Your task to perform on an android device: What's the weather? Image 0: 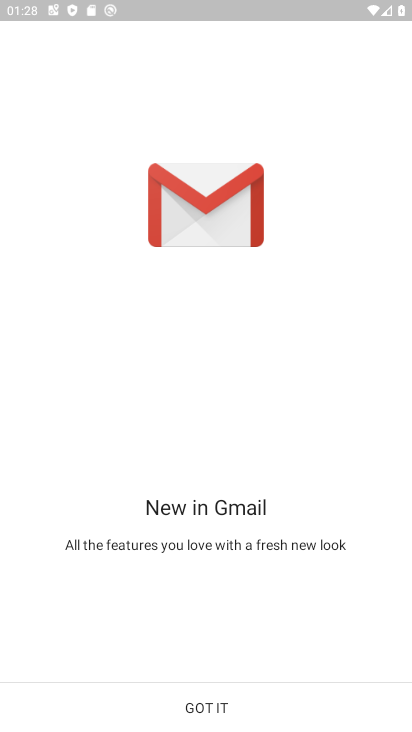
Step 0: press home button
Your task to perform on an android device: What's the weather? Image 1: 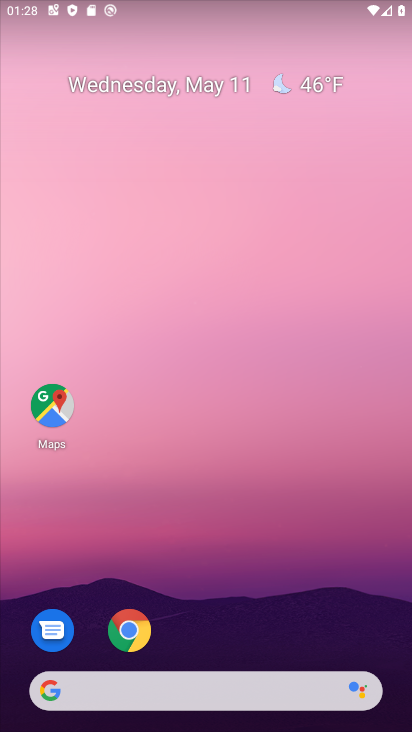
Step 1: drag from (284, 512) to (263, 105)
Your task to perform on an android device: What's the weather? Image 2: 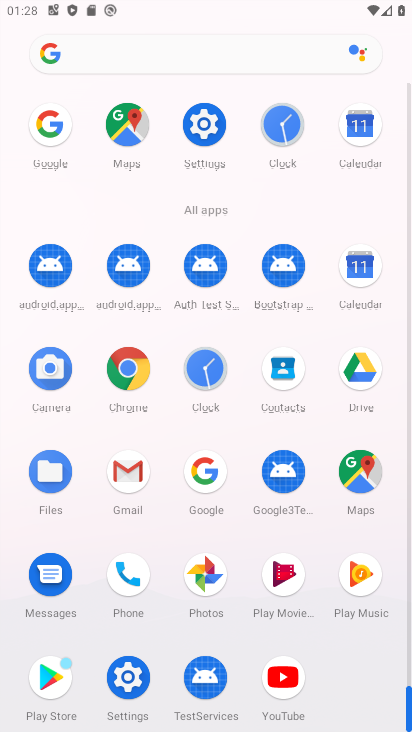
Step 2: drag from (262, 108) to (293, 409)
Your task to perform on an android device: What's the weather? Image 3: 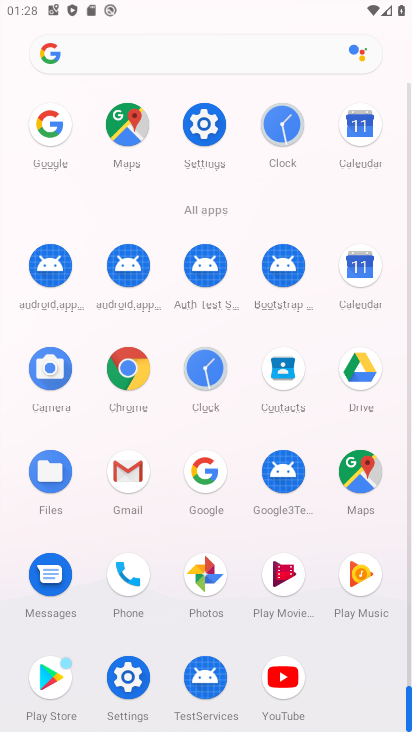
Step 3: press home button
Your task to perform on an android device: What's the weather? Image 4: 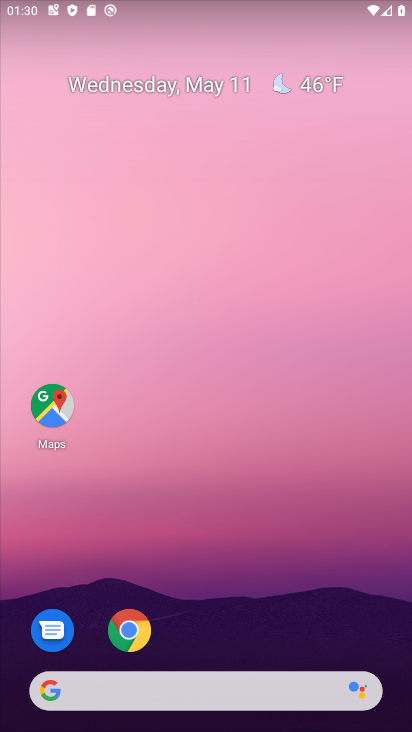
Step 4: drag from (336, 485) to (217, 4)
Your task to perform on an android device: What's the weather? Image 5: 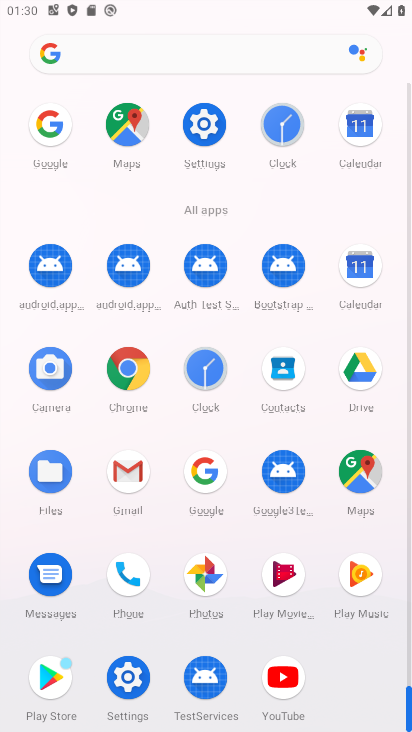
Step 5: press home button
Your task to perform on an android device: What's the weather? Image 6: 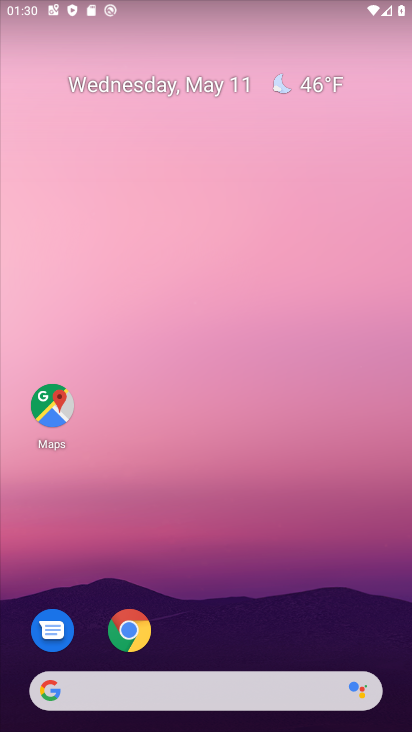
Step 6: click (324, 81)
Your task to perform on an android device: What's the weather? Image 7: 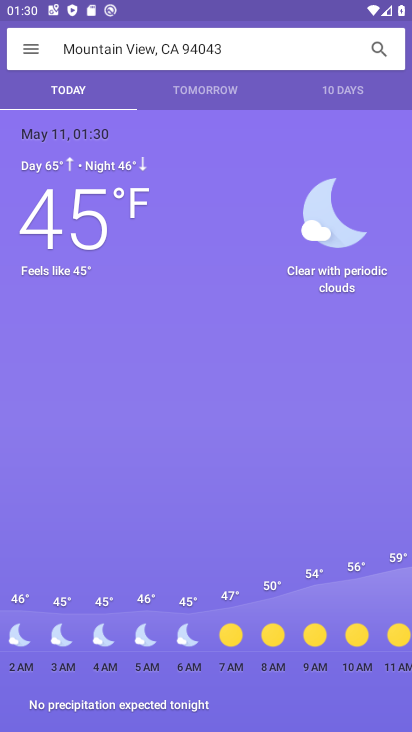
Step 7: task complete